Your task to perform on an android device: delete location history Image 0: 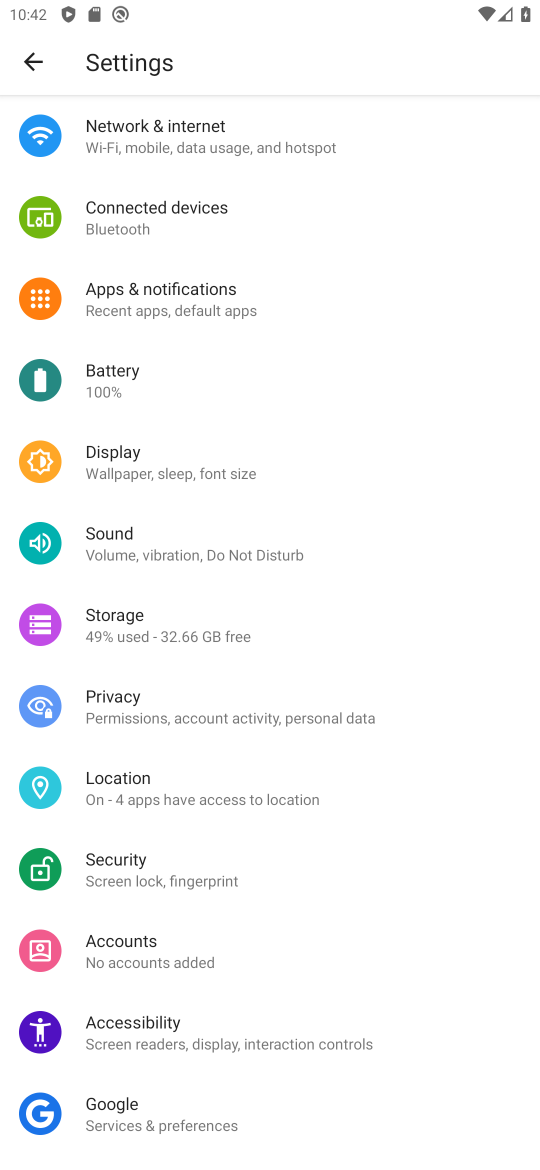
Step 0: click (206, 801)
Your task to perform on an android device: delete location history Image 1: 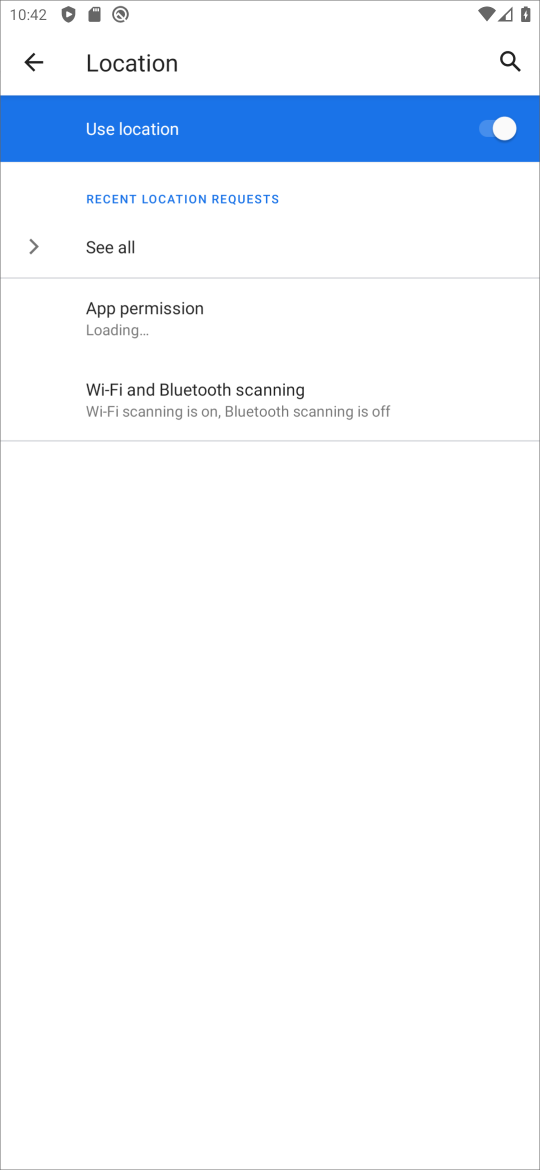
Step 1: task complete